Your task to perform on an android device: Open calendar and show me the first week of next month Image 0: 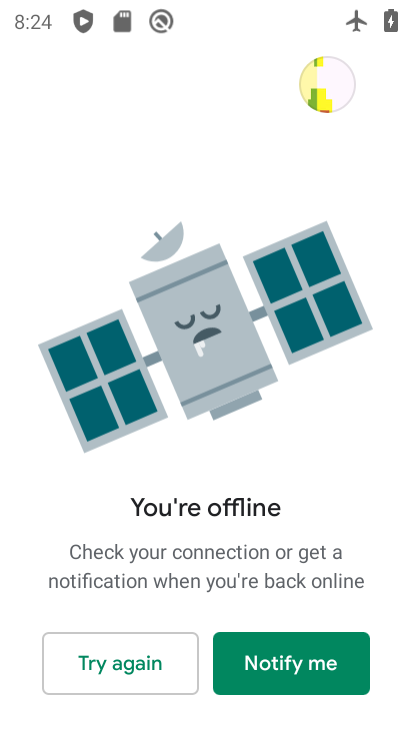
Step 0: press home button
Your task to perform on an android device: Open calendar and show me the first week of next month Image 1: 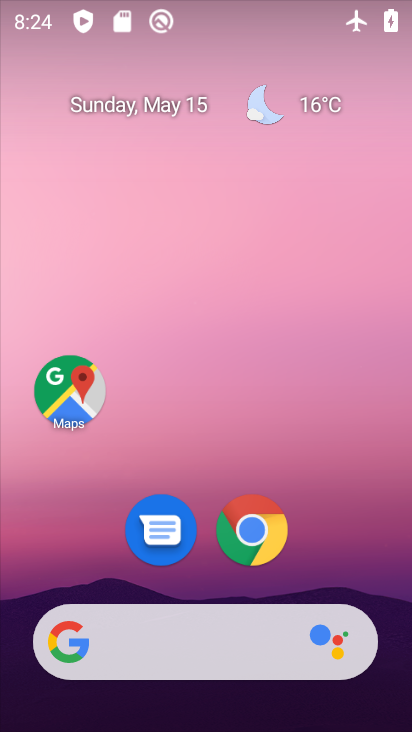
Step 1: drag from (199, 720) to (198, 270)
Your task to perform on an android device: Open calendar and show me the first week of next month Image 2: 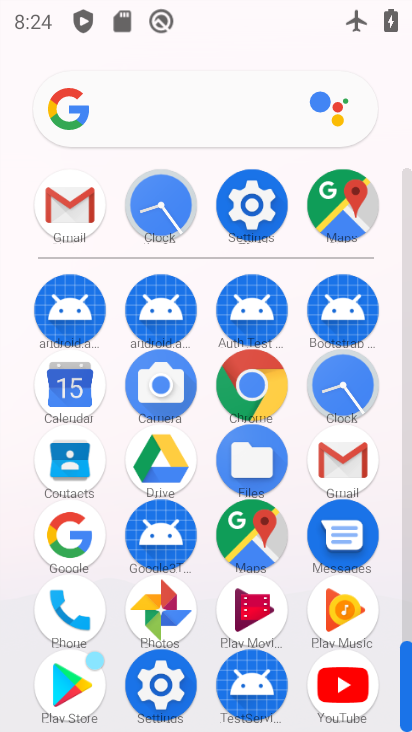
Step 2: click (71, 382)
Your task to perform on an android device: Open calendar and show me the first week of next month Image 3: 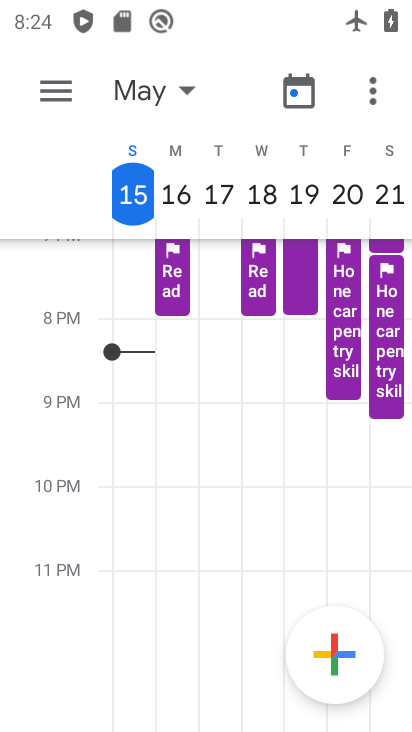
Step 3: drag from (381, 184) to (75, 185)
Your task to perform on an android device: Open calendar and show me the first week of next month Image 4: 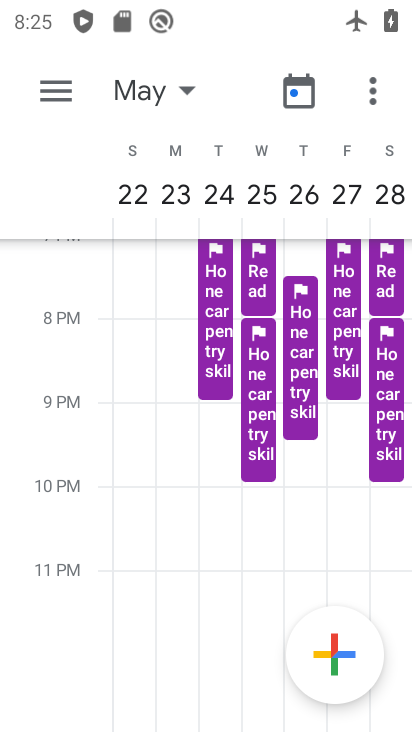
Step 4: drag from (389, 199) to (80, 184)
Your task to perform on an android device: Open calendar and show me the first week of next month Image 5: 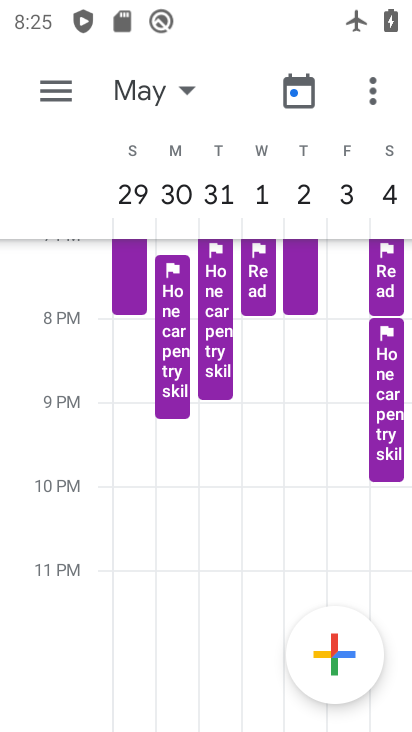
Step 5: drag from (360, 197) to (153, 202)
Your task to perform on an android device: Open calendar and show me the first week of next month Image 6: 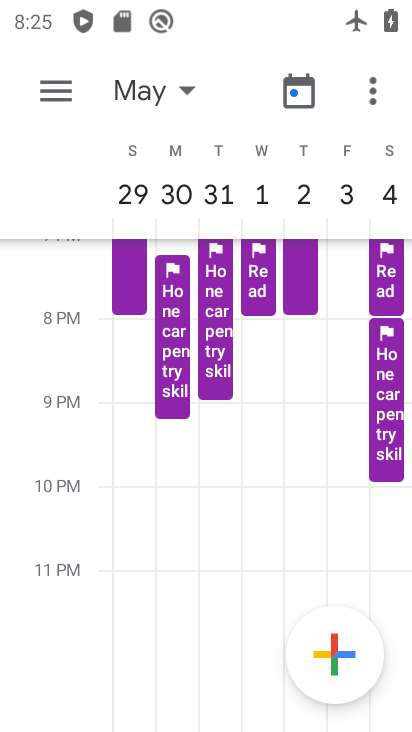
Step 6: drag from (380, 196) to (4, 176)
Your task to perform on an android device: Open calendar and show me the first week of next month Image 7: 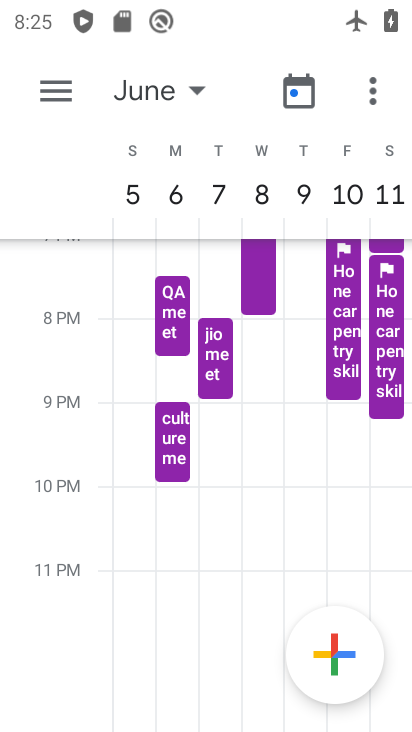
Step 7: click (168, 190)
Your task to perform on an android device: Open calendar and show me the first week of next month Image 8: 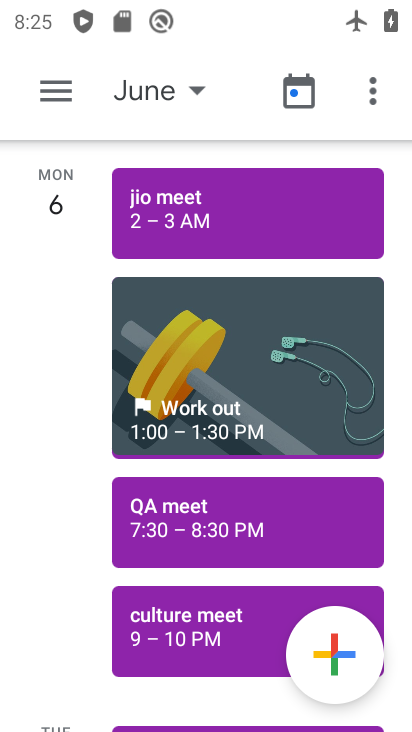
Step 8: task complete